Your task to perform on an android device: Find the nearest electronics store that's open tomorrow Image 0: 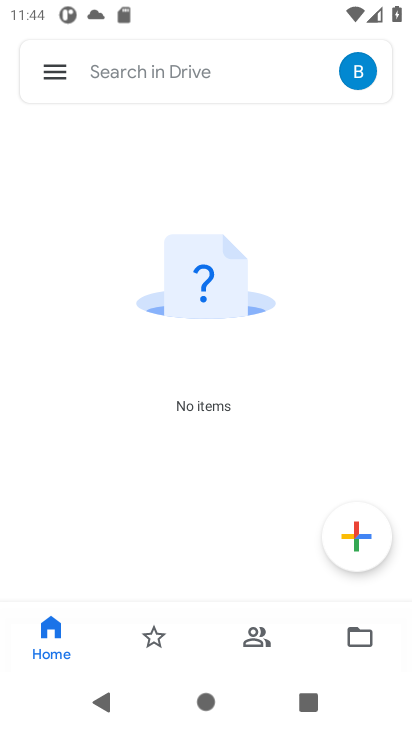
Step 0: press home button
Your task to perform on an android device: Find the nearest electronics store that's open tomorrow Image 1: 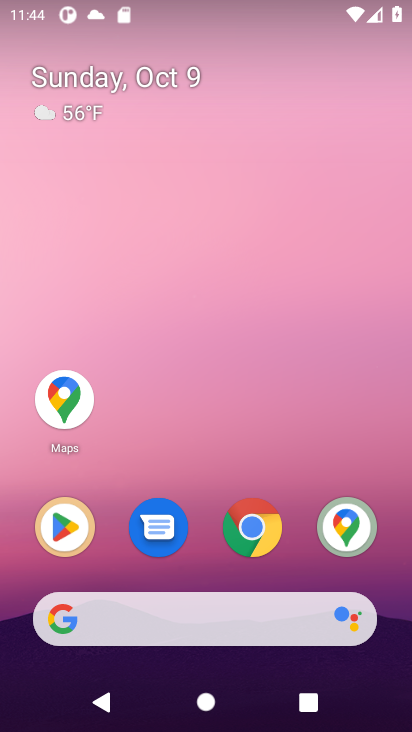
Step 1: click (247, 523)
Your task to perform on an android device: Find the nearest electronics store that's open tomorrow Image 2: 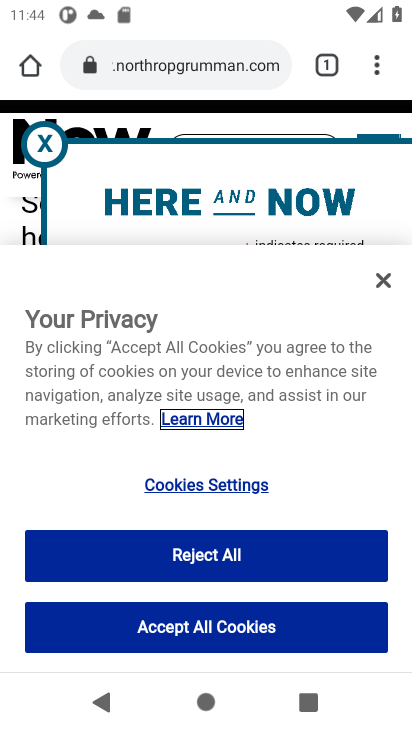
Step 2: click (166, 65)
Your task to perform on an android device: Find the nearest electronics store that's open tomorrow Image 3: 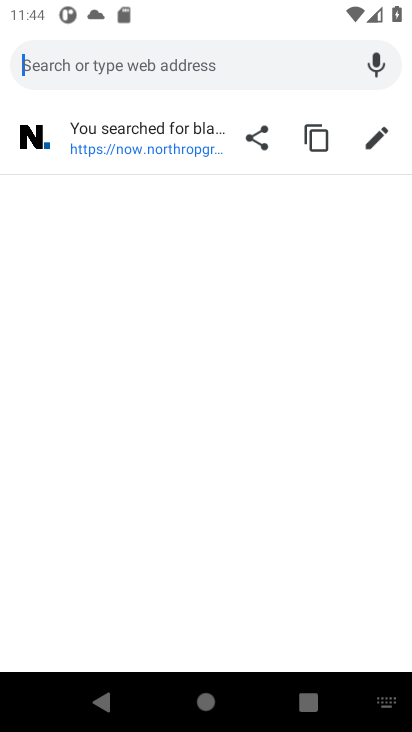
Step 3: type "Find the nearest electronics store that's open tomorrow"
Your task to perform on an android device: Find the nearest electronics store that's open tomorrow Image 4: 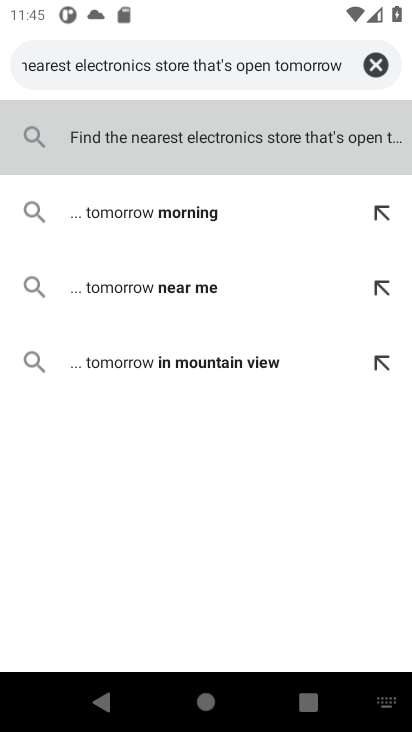
Step 4: click (226, 143)
Your task to perform on an android device: Find the nearest electronics store that's open tomorrow Image 5: 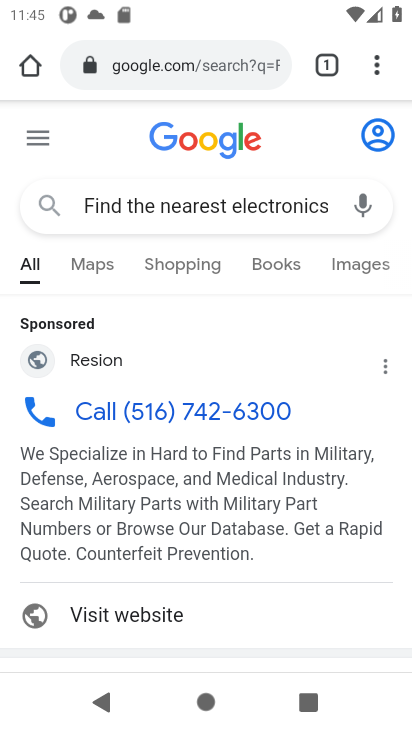
Step 5: drag from (277, 495) to (266, 251)
Your task to perform on an android device: Find the nearest electronics store that's open tomorrow Image 6: 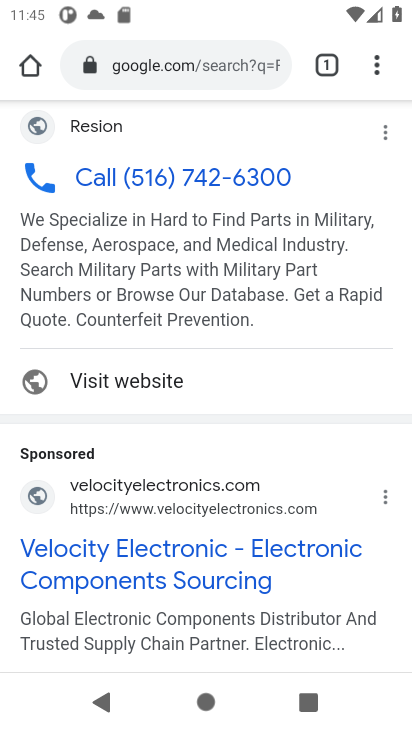
Step 6: drag from (235, 550) to (239, 321)
Your task to perform on an android device: Find the nearest electronics store that's open tomorrow Image 7: 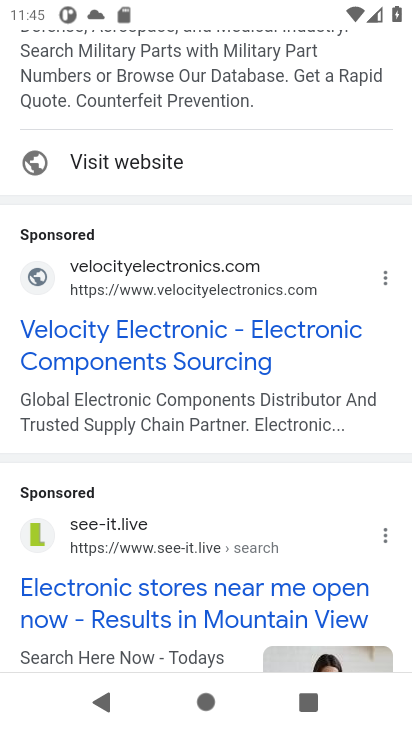
Step 7: drag from (232, 534) to (233, 361)
Your task to perform on an android device: Find the nearest electronics store that's open tomorrow Image 8: 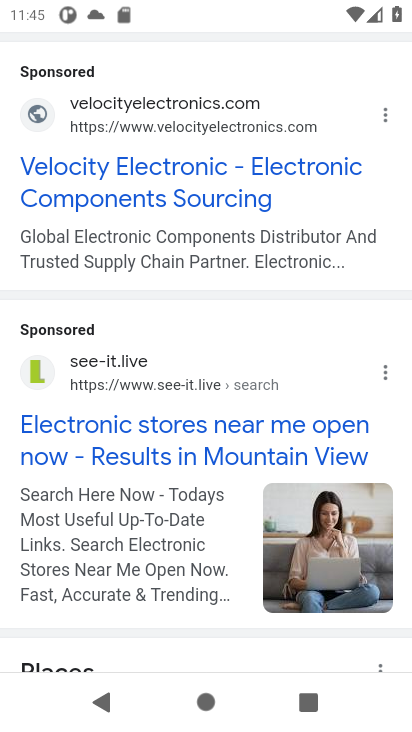
Step 8: drag from (187, 542) to (194, 408)
Your task to perform on an android device: Find the nearest electronics store that's open tomorrow Image 9: 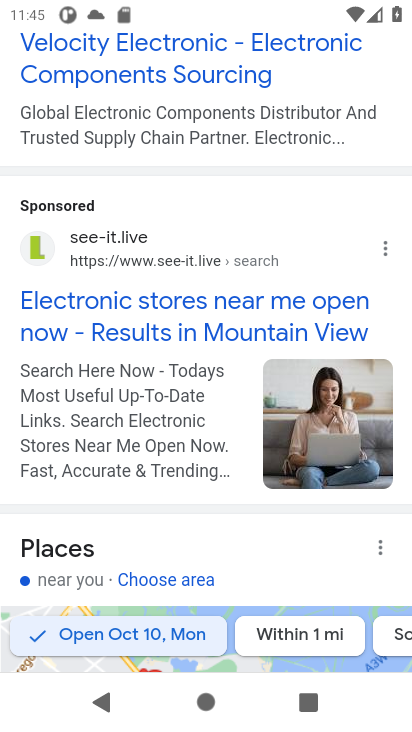
Step 9: drag from (207, 547) to (210, 329)
Your task to perform on an android device: Find the nearest electronics store that's open tomorrow Image 10: 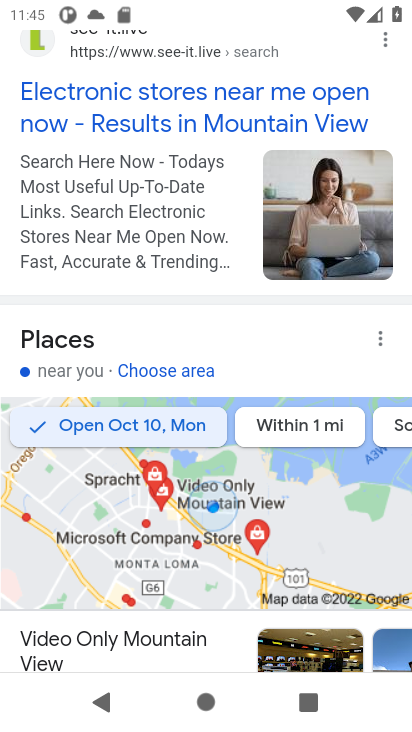
Step 10: drag from (202, 552) to (195, 314)
Your task to perform on an android device: Find the nearest electronics store that's open tomorrow Image 11: 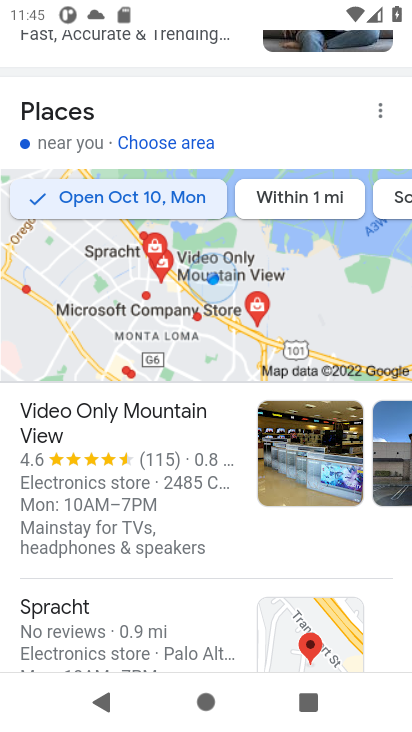
Step 11: drag from (116, 526) to (129, 370)
Your task to perform on an android device: Find the nearest electronics store that's open tomorrow Image 12: 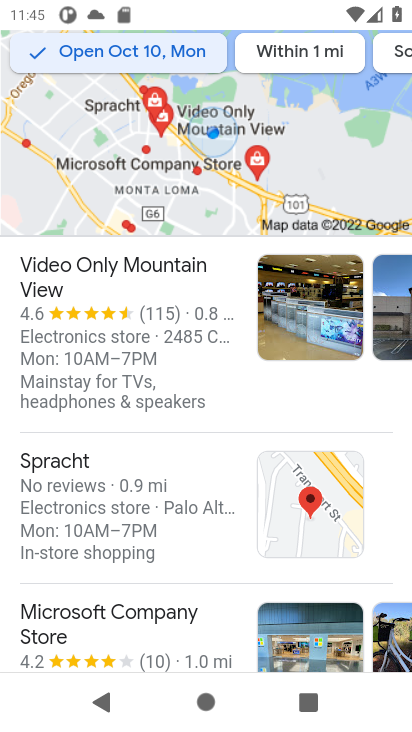
Step 12: click (87, 345)
Your task to perform on an android device: Find the nearest electronics store that's open tomorrow Image 13: 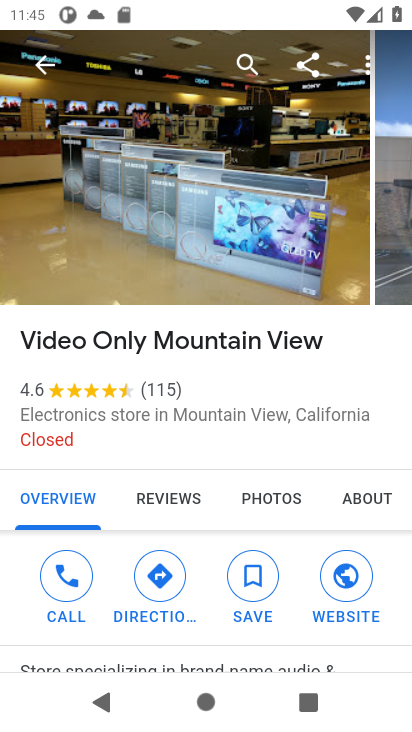
Step 13: task complete